Your task to perform on an android device: check out phone information Image 0: 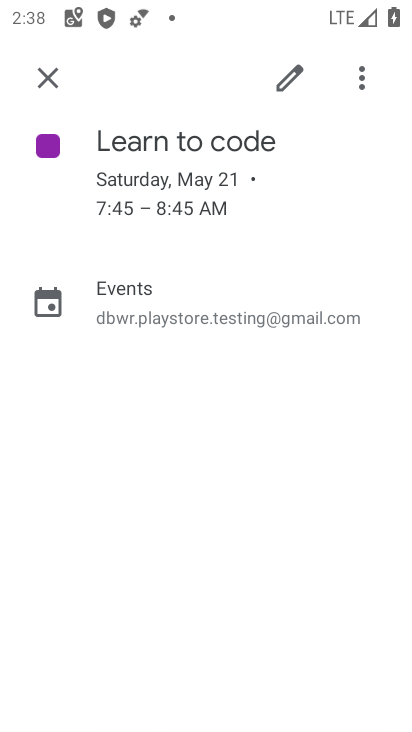
Step 0: press back button
Your task to perform on an android device: check out phone information Image 1: 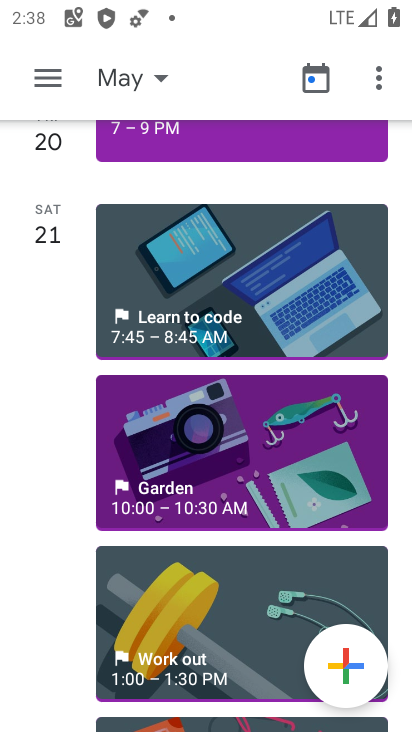
Step 1: press back button
Your task to perform on an android device: check out phone information Image 2: 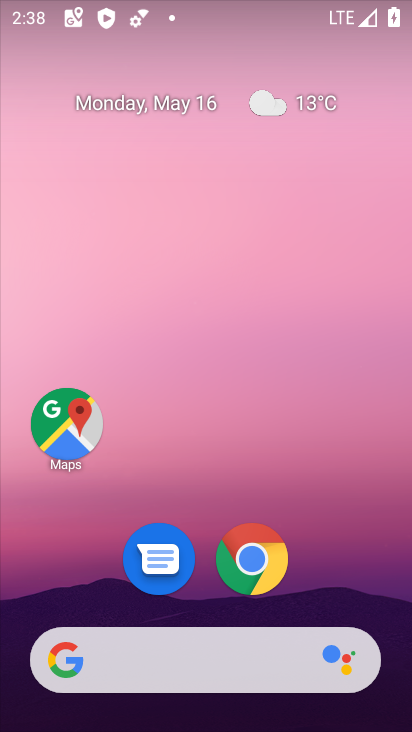
Step 2: drag from (225, 618) to (285, 182)
Your task to perform on an android device: check out phone information Image 3: 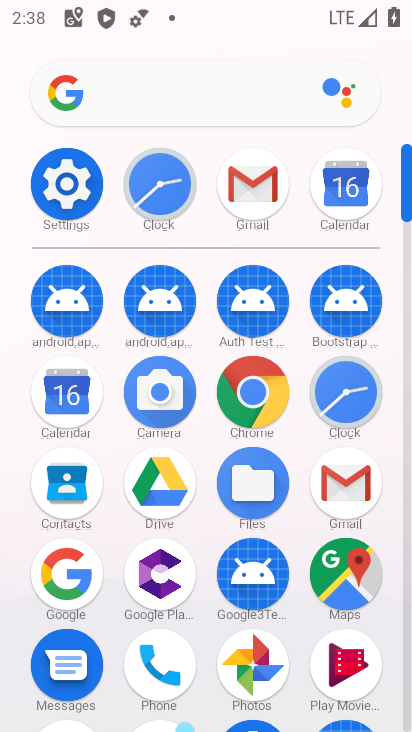
Step 3: click (78, 180)
Your task to perform on an android device: check out phone information Image 4: 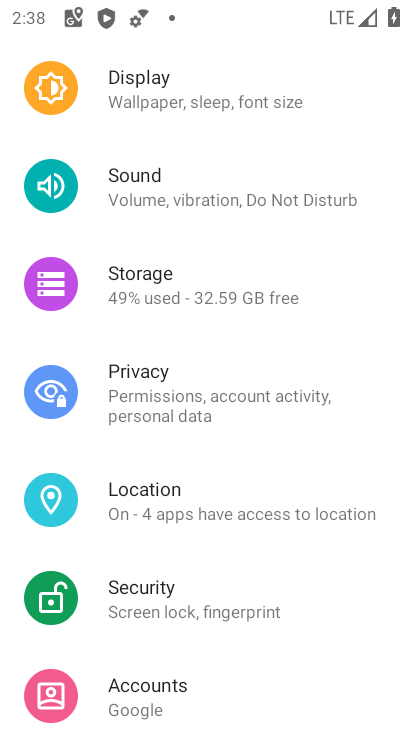
Step 4: drag from (183, 535) to (282, 0)
Your task to perform on an android device: check out phone information Image 5: 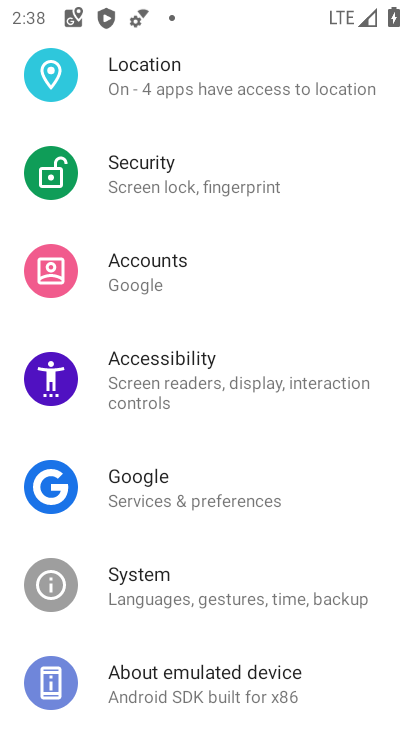
Step 5: drag from (201, 662) to (344, 44)
Your task to perform on an android device: check out phone information Image 6: 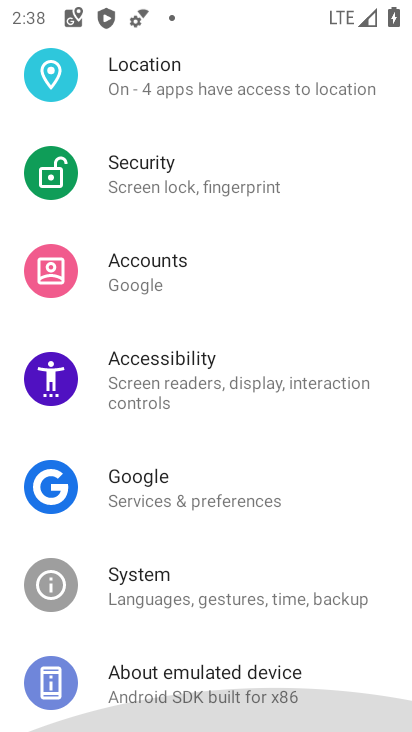
Step 6: drag from (284, 199) to (169, 712)
Your task to perform on an android device: check out phone information Image 7: 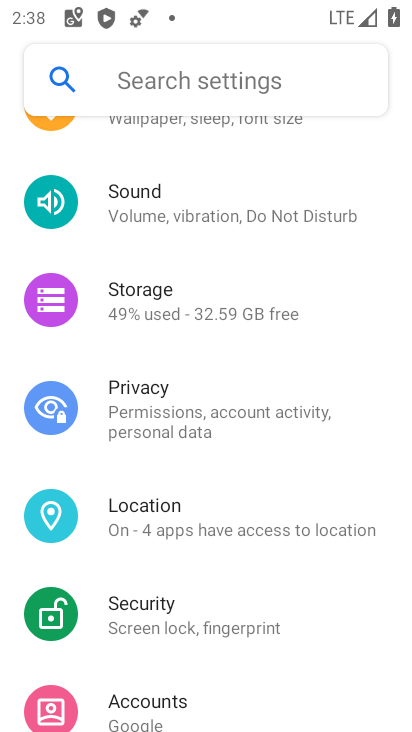
Step 7: drag from (233, 203) to (164, 682)
Your task to perform on an android device: check out phone information Image 8: 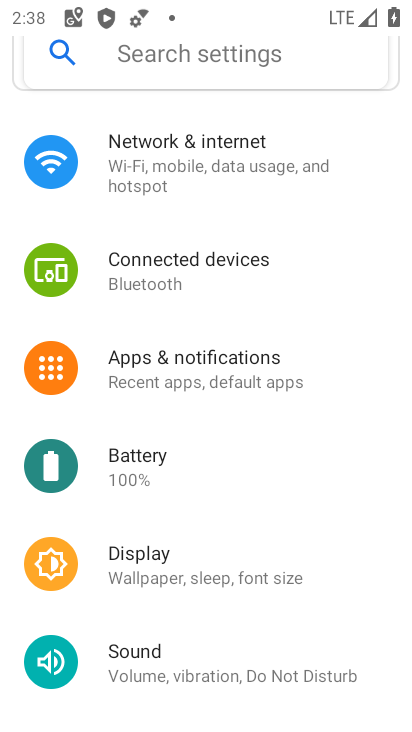
Step 8: drag from (172, 267) to (150, 691)
Your task to perform on an android device: check out phone information Image 9: 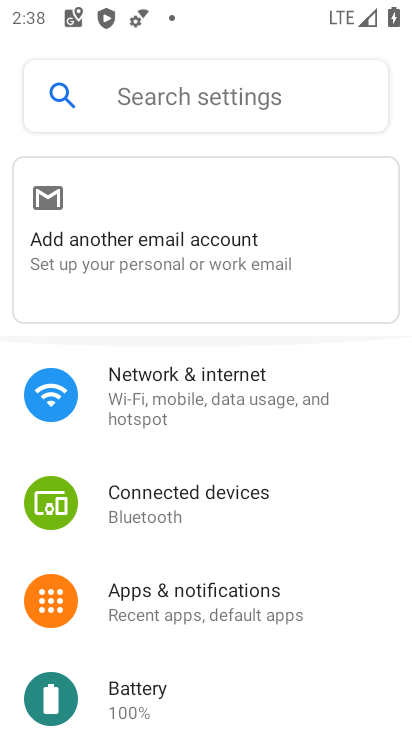
Step 9: drag from (193, 347) to (190, 662)
Your task to perform on an android device: check out phone information Image 10: 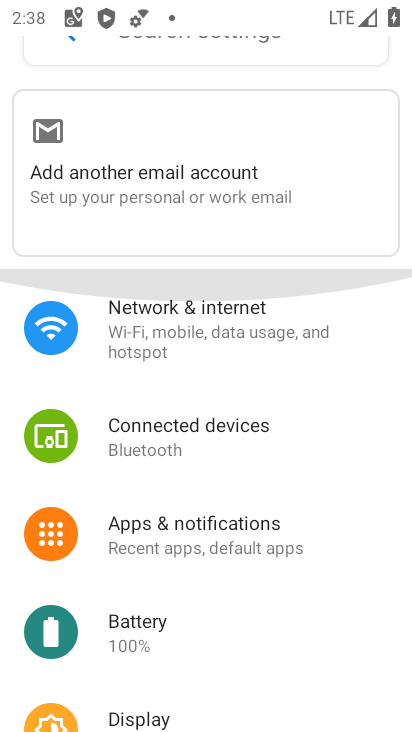
Step 10: drag from (211, 311) to (181, 594)
Your task to perform on an android device: check out phone information Image 11: 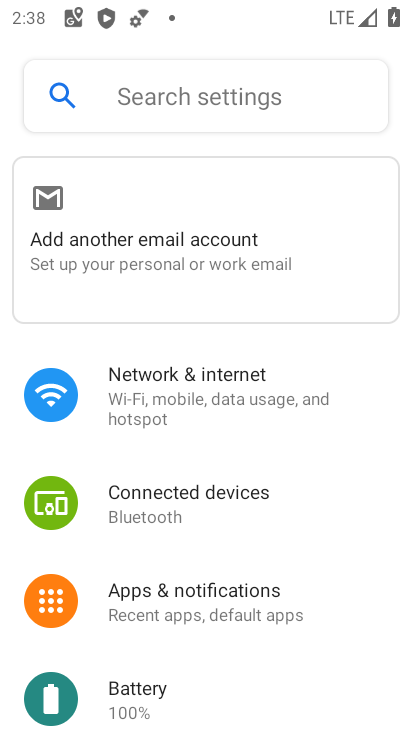
Step 11: drag from (182, 606) to (329, 106)
Your task to perform on an android device: check out phone information Image 12: 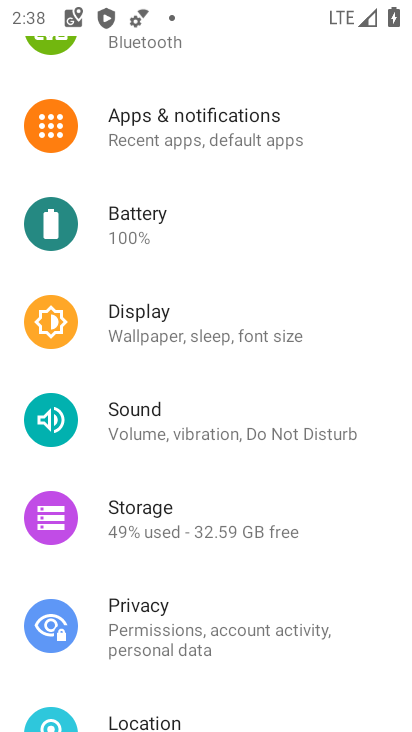
Step 12: drag from (244, 586) to (347, 19)
Your task to perform on an android device: check out phone information Image 13: 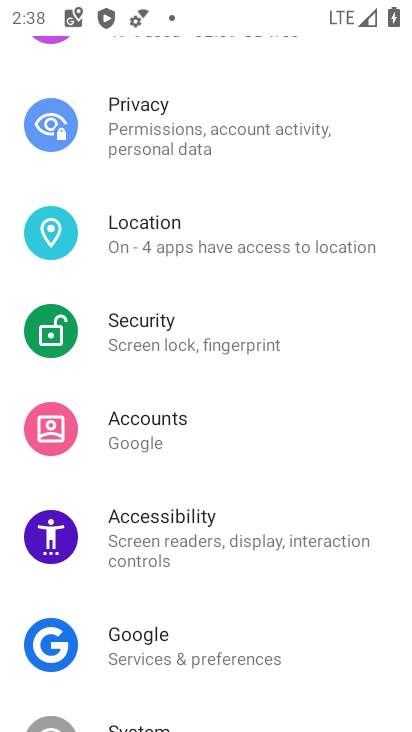
Step 13: drag from (235, 589) to (330, 0)
Your task to perform on an android device: check out phone information Image 14: 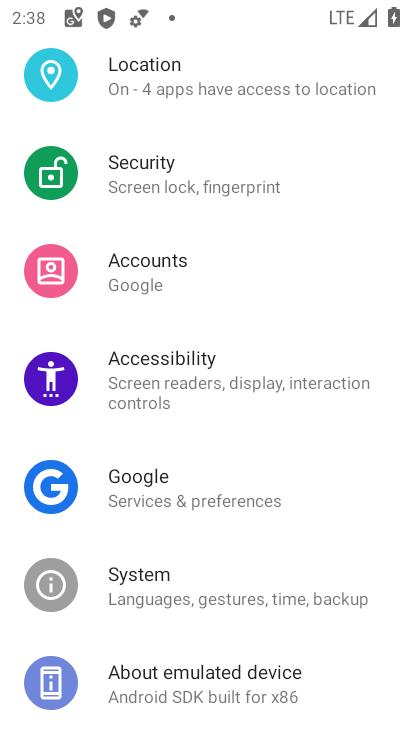
Step 14: drag from (199, 639) to (320, 91)
Your task to perform on an android device: check out phone information Image 15: 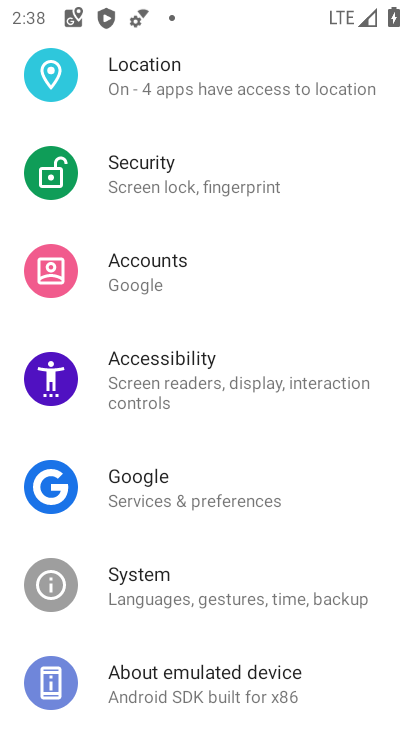
Step 15: click (171, 671)
Your task to perform on an android device: check out phone information Image 16: 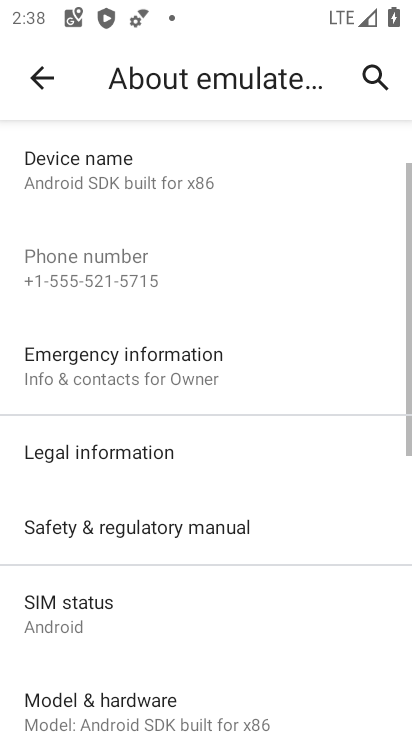
Step 16: task complete